Your task to perform on an android device: change the clock display to digital Image 0: 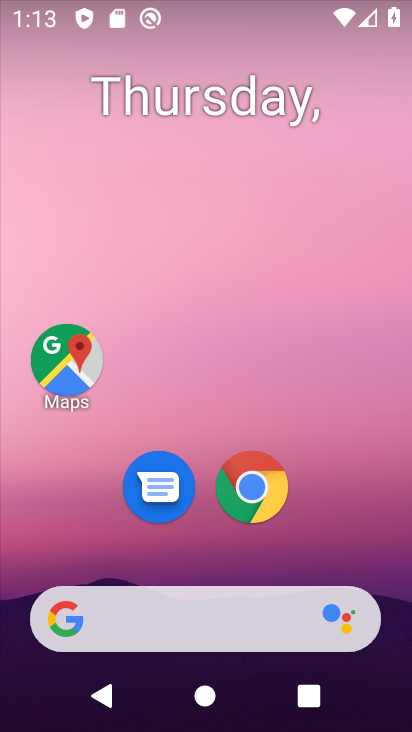
Step 0: drag from (354, 561) to (175, 94)
Your task to perform on an android device: change the clock display to digital Image 1: 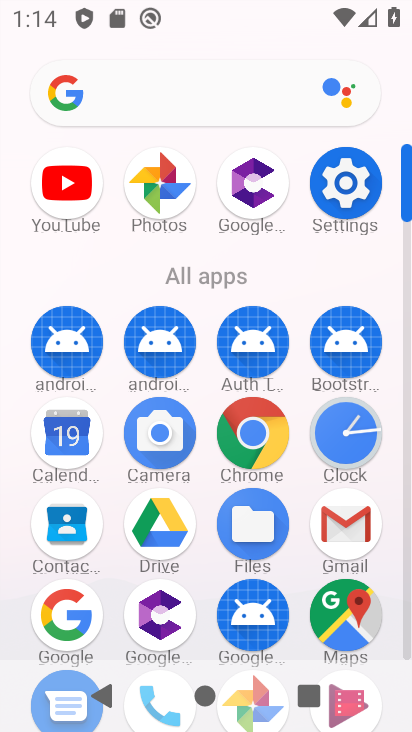
Step 1: click (326, 433)
Your task to perform on an android device: change the clock display to digital Image 2: 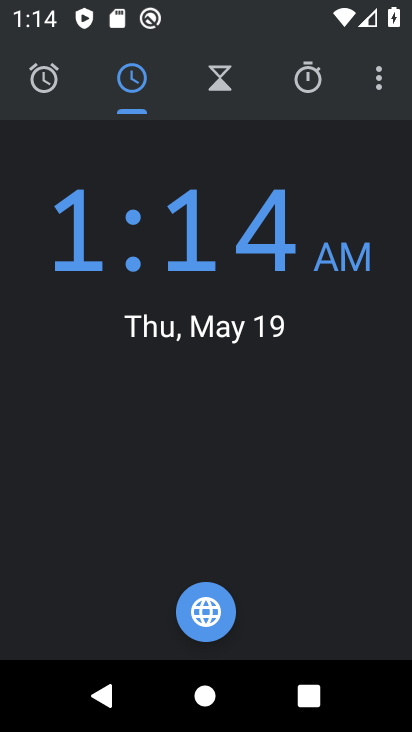
Step 2: click (372, 91)
Your task to perform on an android device: change the clock display to digital Image 3: 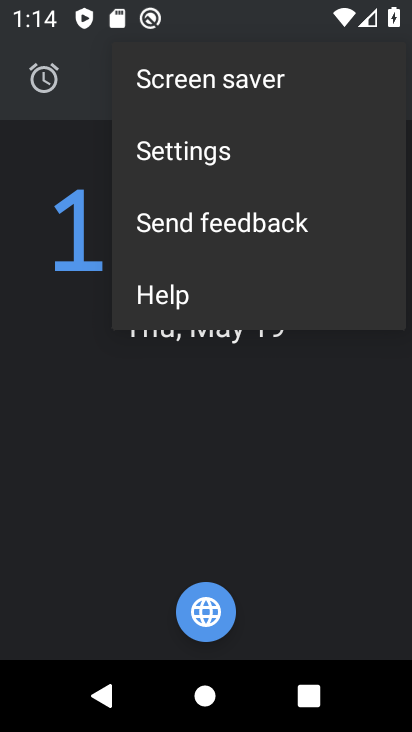
Step 3: click (267, 142)
Your task to perform on an android device: change the clock display to digital Image 4: 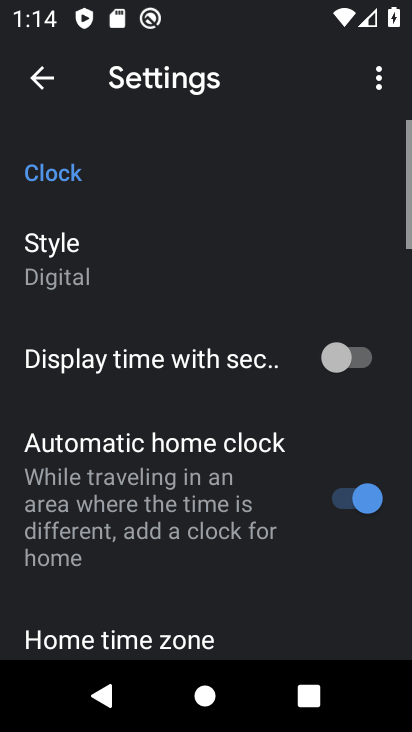
Step 4: click (161, 245)
Your task to perform on an android device: change the clock display to digital Image 5: 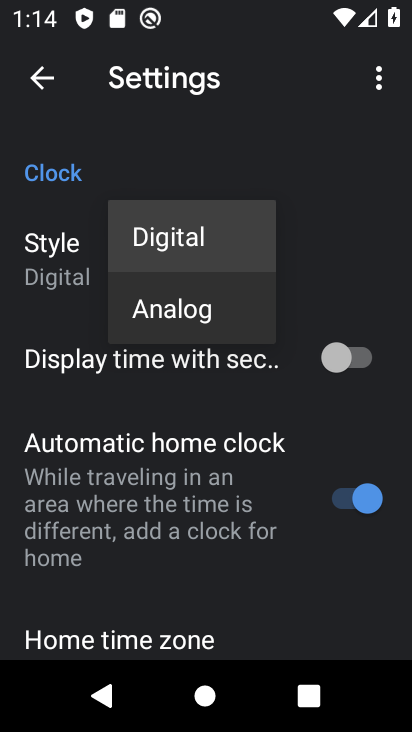
Step 5: click (350, 366)
Your task to perform on an android device: change the clock display to digital Image 6: 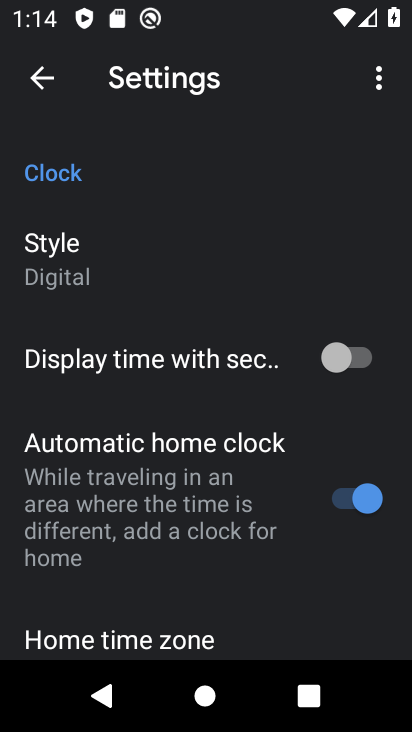
Step 6: click (350, 366)
Your task to perform on an android device: change the clock display to digital Image 7: 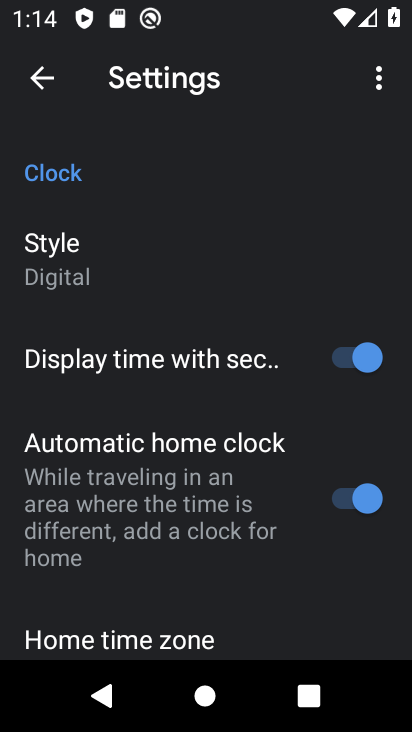
Step 7: task complete